Your task to perform on an android device: Open battery settings Image 0: 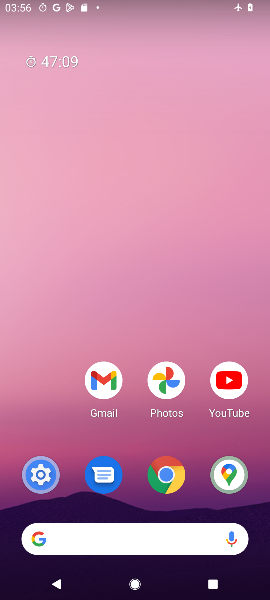
Step 0: press home button
Your task to perform on an android device: Open battery settings Image 1: 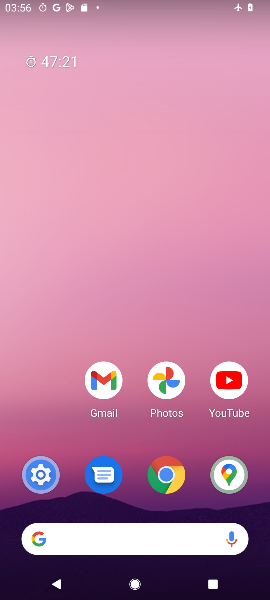
Step 1: drag from (60, 427) to (45, 193)
Your task to perform on an android device: Open battery settings Image 2: 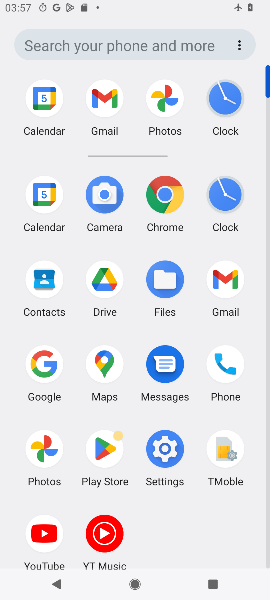
Step 2: click (163, 449)
Your task to perform on an android device: Open battery settings Image 3: 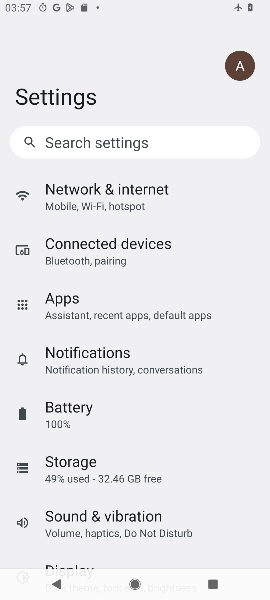
Step 3: drag from (225, 453) to (229, 374)
Your task to perform on an android device: Open battery settings Image 4: 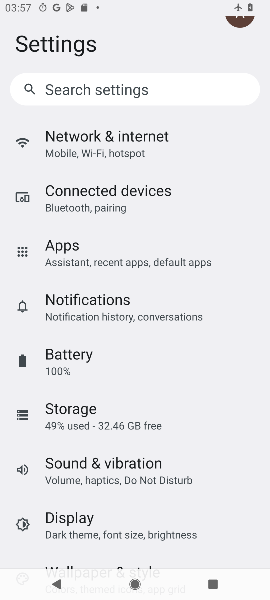
Step 4: drag from (223, 471) to (223, 383)
Your task to perform on an android device: Open battery settings Image 5: 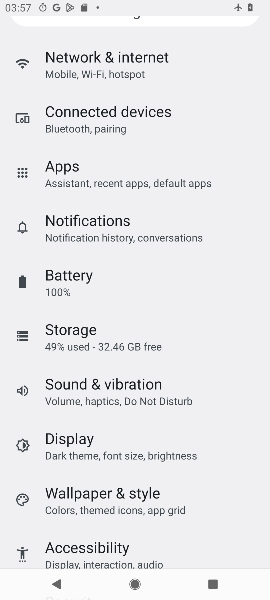
Step 5: drag from (222, 511) to (227, 383)
Your task to perform on an android device: Open battery settings Image 6: 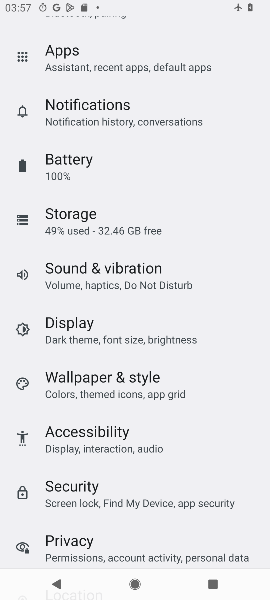
Step 6: drag from (229, 467) to (227, 357)
Your task to perform on an android device: Open battery settings Image 7: 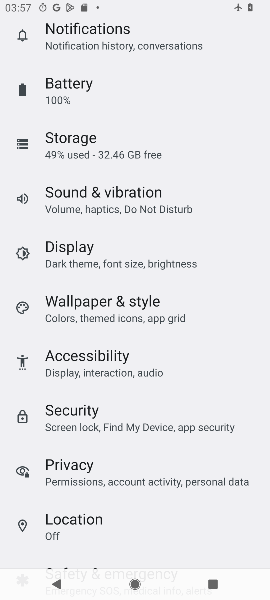
Step 7: drag from (229, 434) to (237, 378)
Your task to perform on an android device: Open battery settings Image 8: 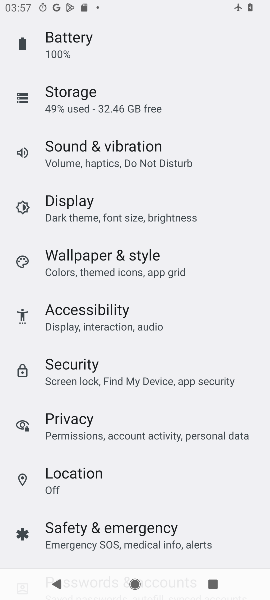
Step 8: drag from (226, 248) to (224, 331)
Your task to perform on an android device: Open battery settings Image 9: 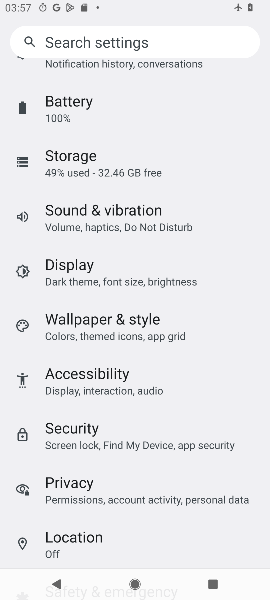
Step 9: drag from (231, 210) to (233, 315)
Your task to perform on an android device: Open battery settings Image 10: 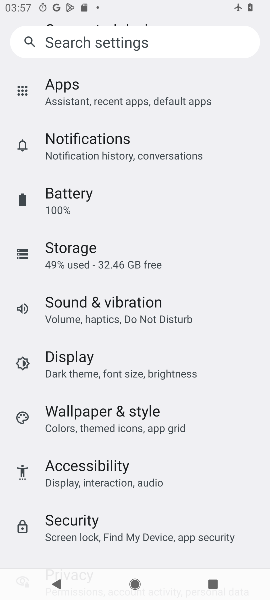
Step 10: drag from (227, 196) to (221, 310)
Your task to perform on an android device: Open battery settings Image 11: 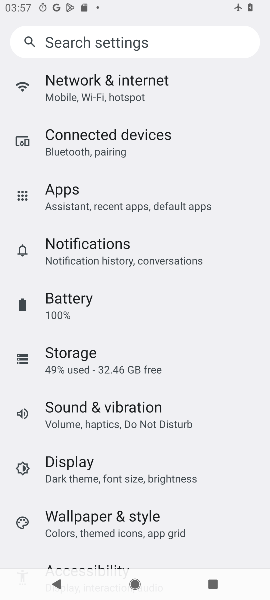
Step 11: drag from (233, 156) to (230, 388)
Your task to perform on an android device: Open battery settings Image 12: 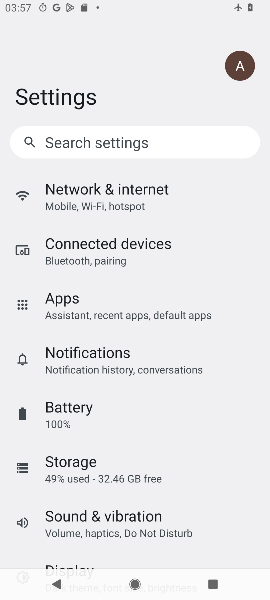
Step 12: click (87, 412)
Your task to perform on an android device: Open battery settings Image 13: 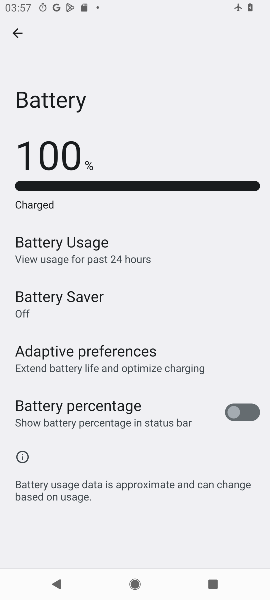
Step 13: task complete